Your task to perform on an android device: Do I have any events this weekend? Image 0: 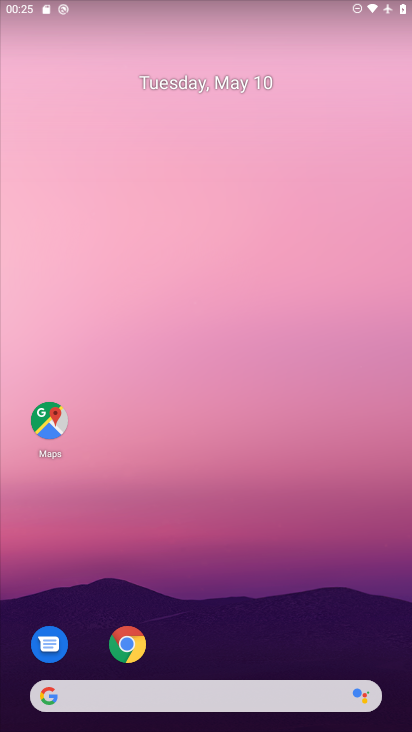
Step 0: drag from (242, 617) to (274, 237)
Your task to perform on an android device: Do I have any events this weekend? Image 1: 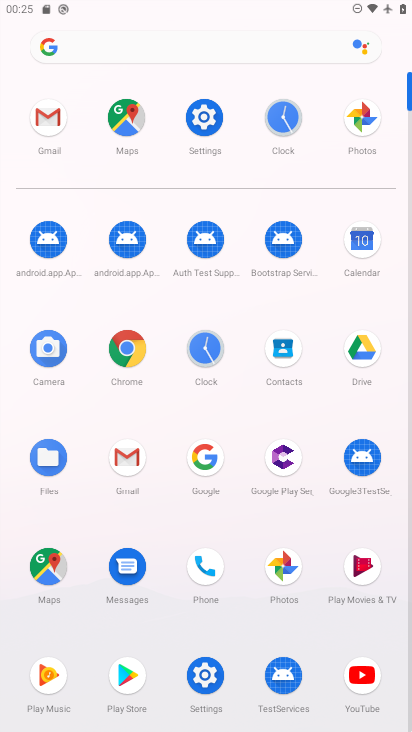
Step 1: click (364, 250)
Your task to perform on an android device: Do I have any events this weekend? Image 2: 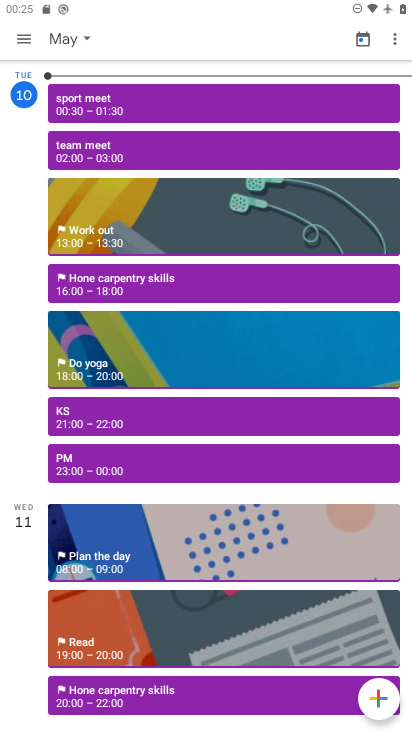
Step 2: click (85, 42)
Your task to perform on an android device: Do I have any events this weekend? Image 3: 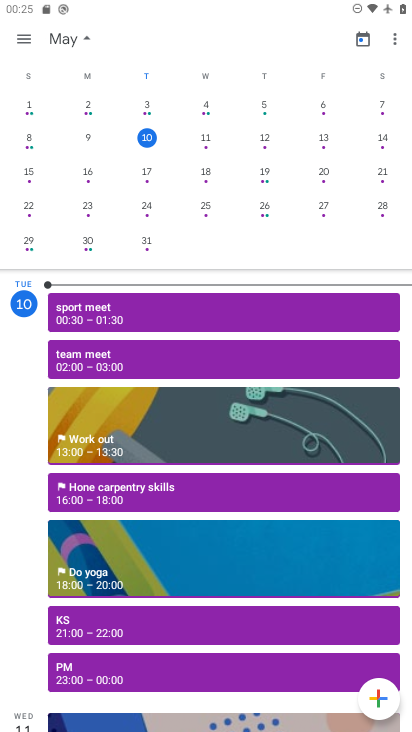
Step 3: click (377, 134)
Your task to perform on an android device: Do I have any events this weekend? Image 4: 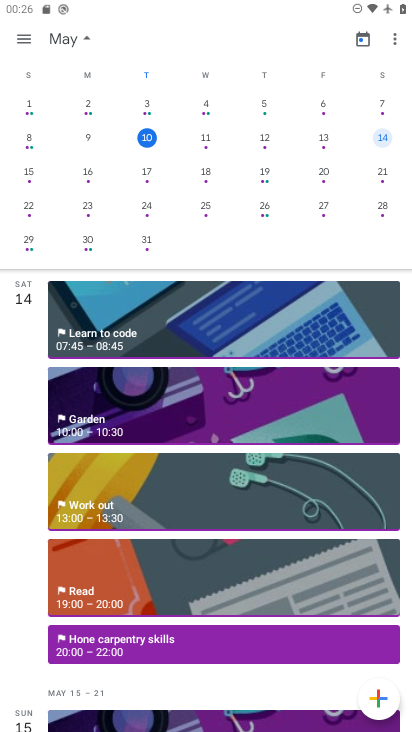
Step 4: task complete